Your task to perform on an android device: check storage Image 0: 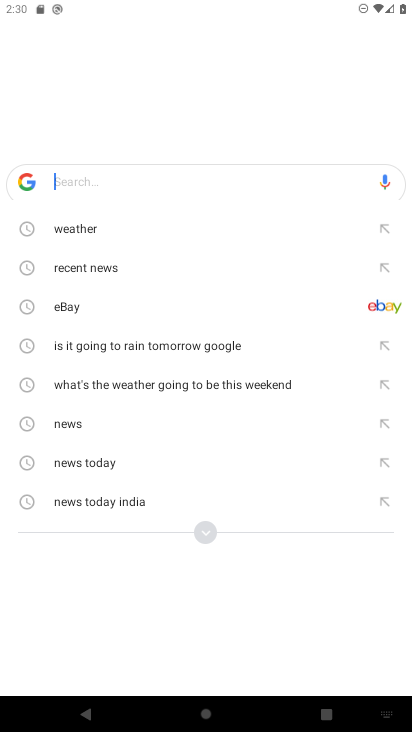
Step 0: press back button
Your task to perform on an android device: check storage Image 1: 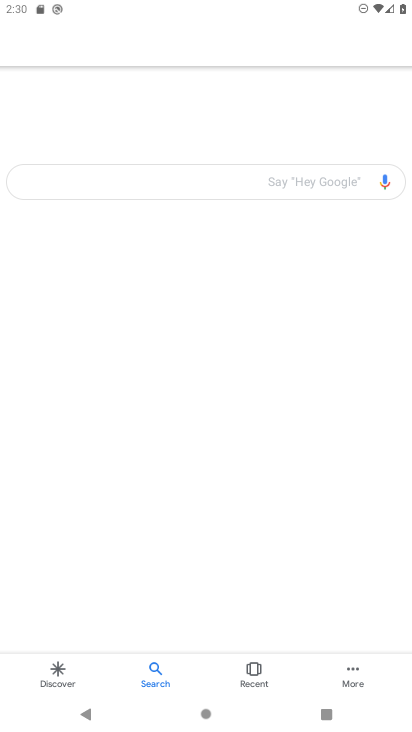
Step 1: press back button
Your task to perform on an android device: check storage Image 2: 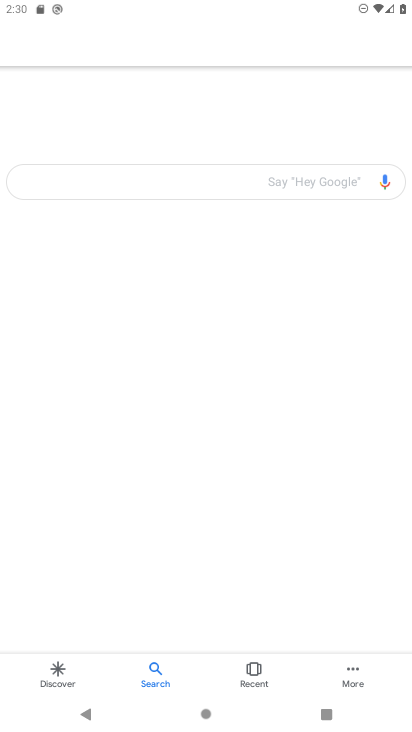
Step 2: press back button
Your task to perform on an android device: check storage Image 3: 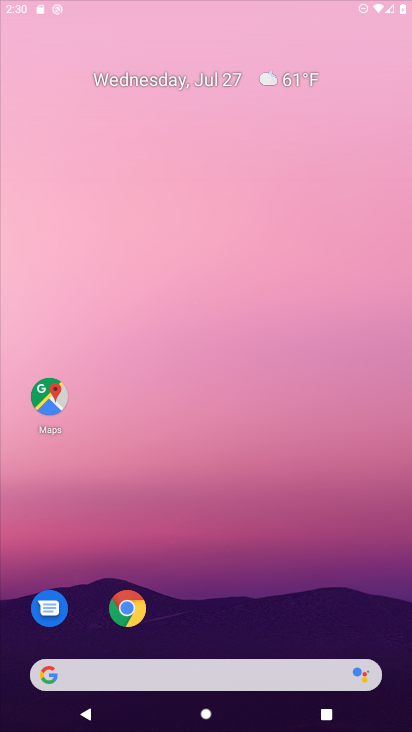
Step 3: press back button
Your task to perform on an android device: check storage Image 4: 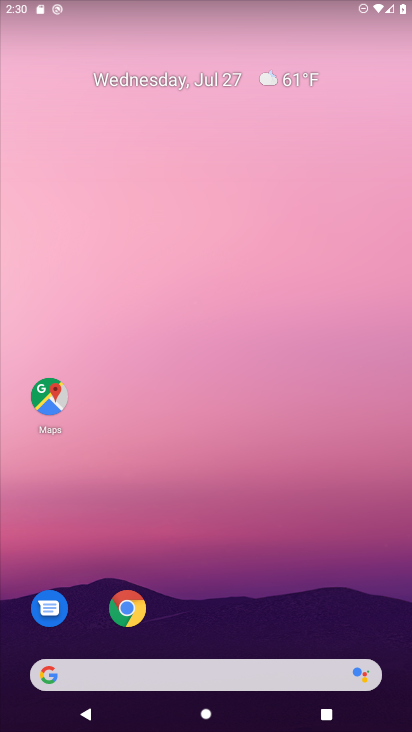
Step 4: drag from (213, 626) to (155, 91)
Your task to perform on an android device: check storage Image 5: 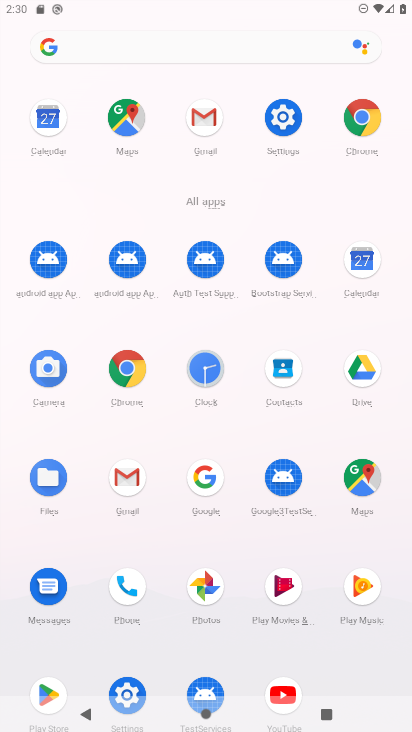
Step 5: click (282, 130)
Your task to perform on an android device: check storage Image 6: 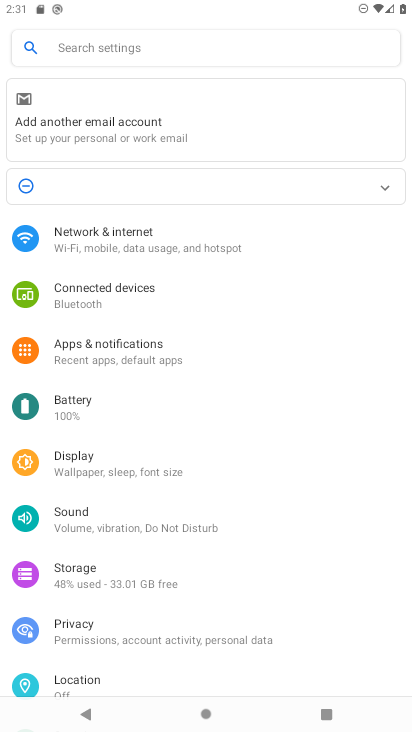
Step 6: click (77, 565)
Your task to perform on an android device: check storage Image 7: 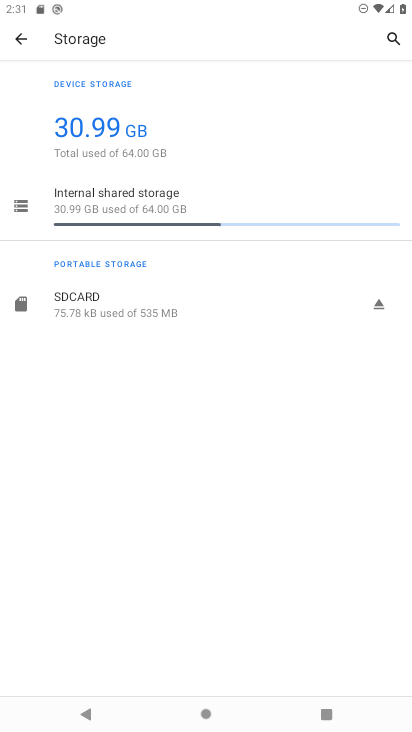
Step 7: task complete